Your task to perform on an android device: set the timer Image 0: 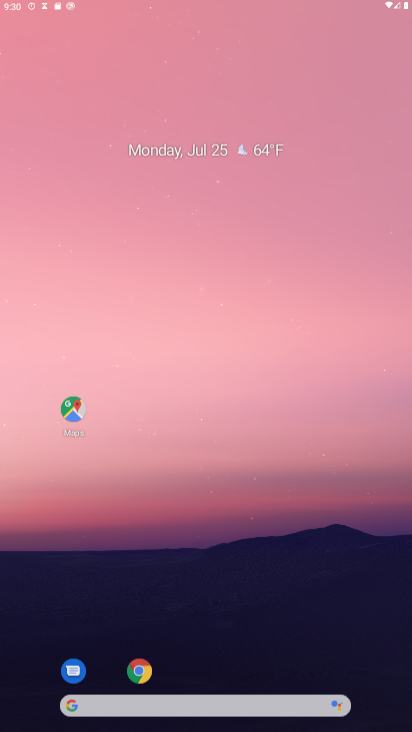
Step 0: press home button
Your task to perform on an android device: set the timer Image 1: 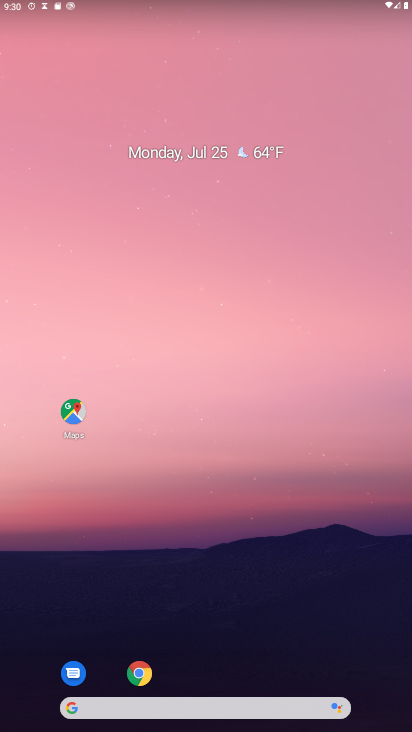
Step 1: drag from (214, 674) to (220, 1)
Your task to perform on an android device: set the timer Image 2: 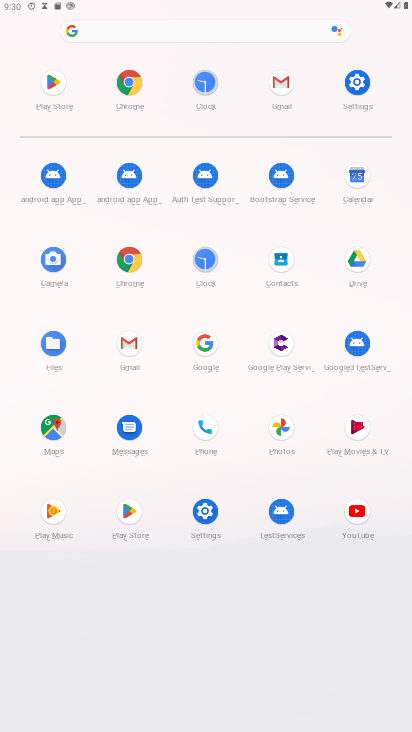
Step 2: click (203, 78)
Your task to perform on an android device: set the timer Image 3: 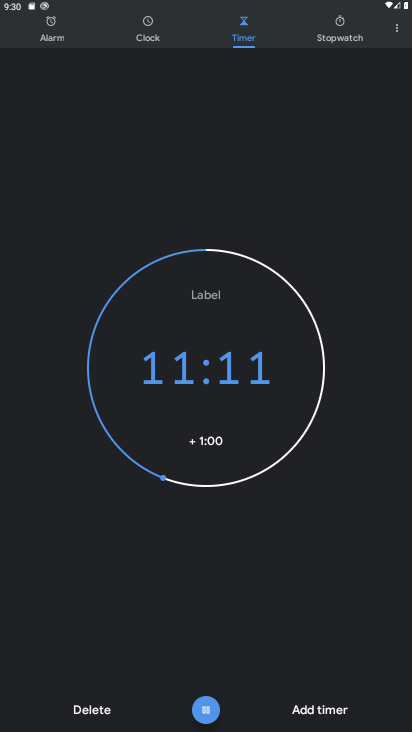
Step 3: click (96, 705)
Your task to perform on an android device: set the timer Image 4: 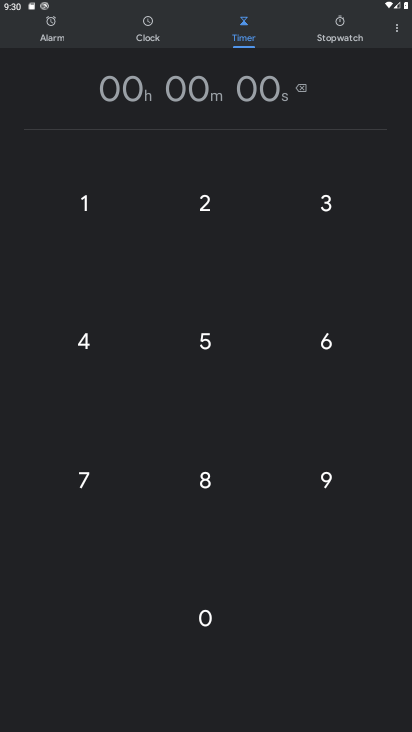
Step 4: click (327, 206)
Your task to perform on an android device: set the timer Image 5: 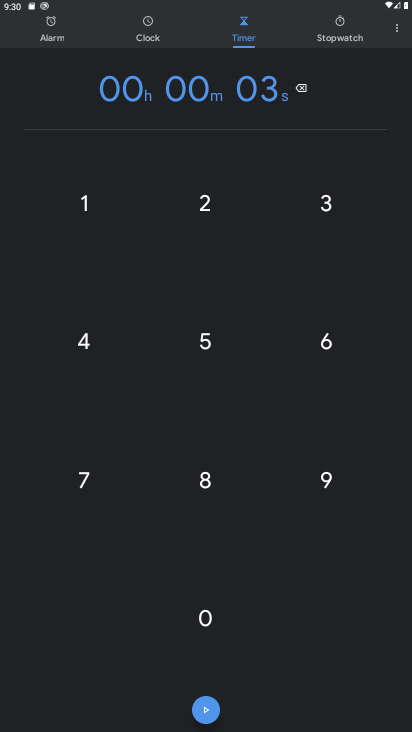
Step 5: click (211, 610)
Your task to perform on an android device: set the timer Image 6: 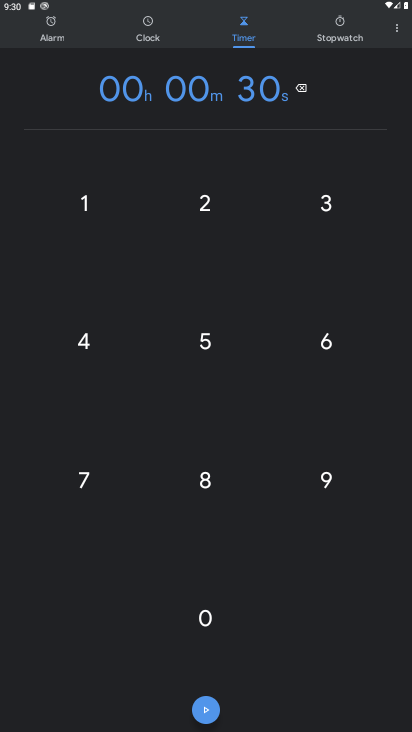
Step 6: click (209, 613)
Your task to perform on an android device: set the timer Image 7: 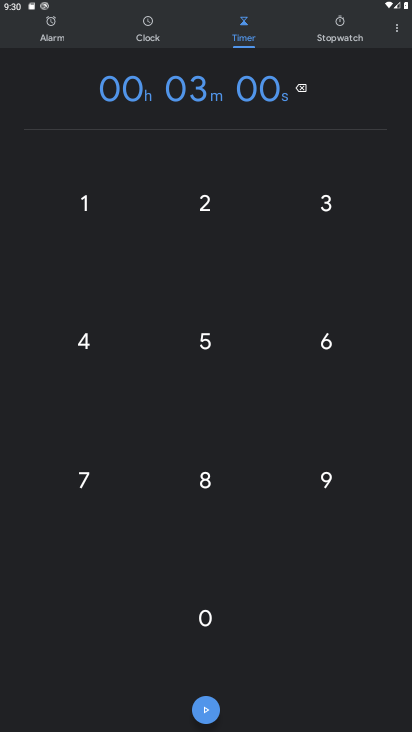
Step 7: click (209, 613)
Your task to perform on an android device: set the timer Image 8: 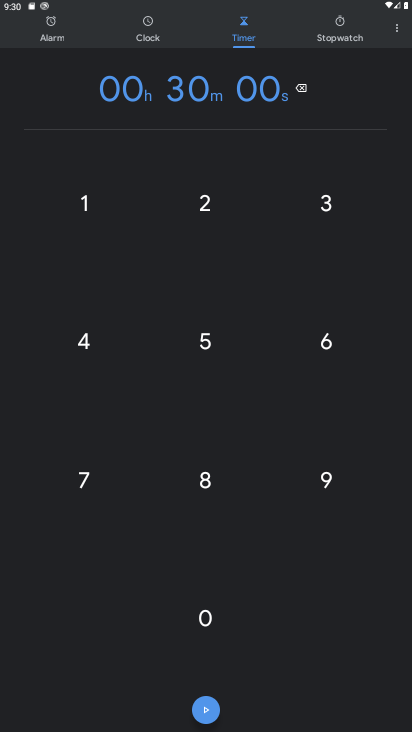
Step 8: click (199, 708)
Your task to perform on an android device: set the timer Image 9: 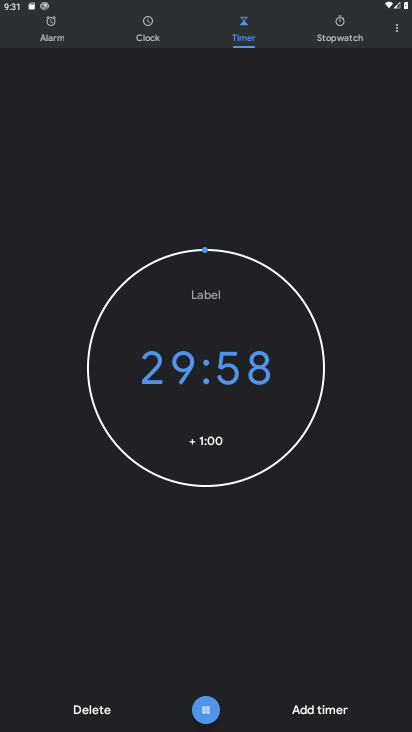
Step 9: task complete